Your task to perform on an android device: change the upload size in google photos Image 0: 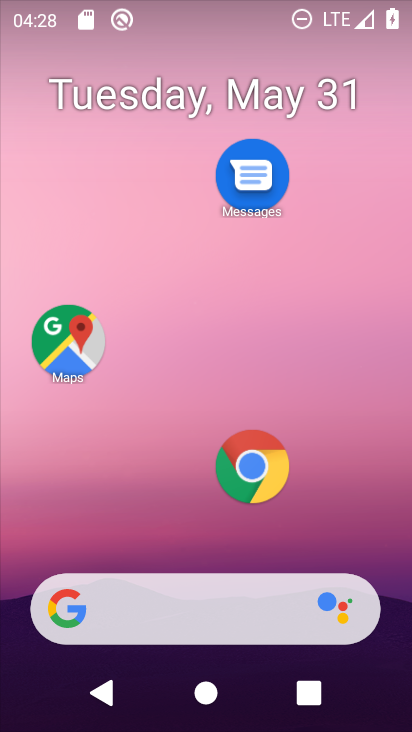
Step 0: drag from (188, 378) to (211, 20)
Your task to perform on an android device: change the upload size in google photos Image 1: 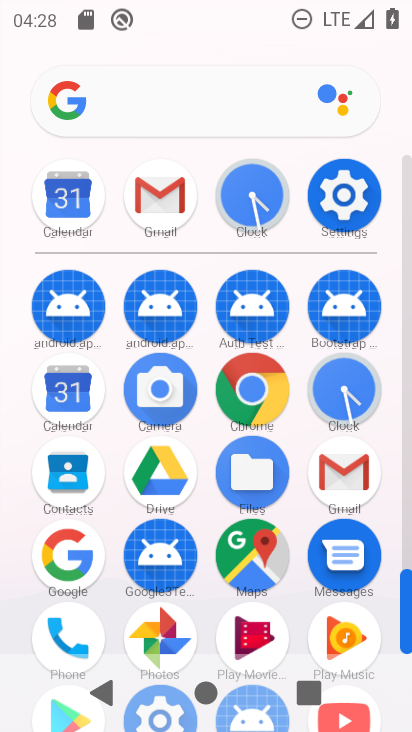
Step 1: click (181, 618)
Your task to perform on an android device: change the upload size in google photos Image 2: 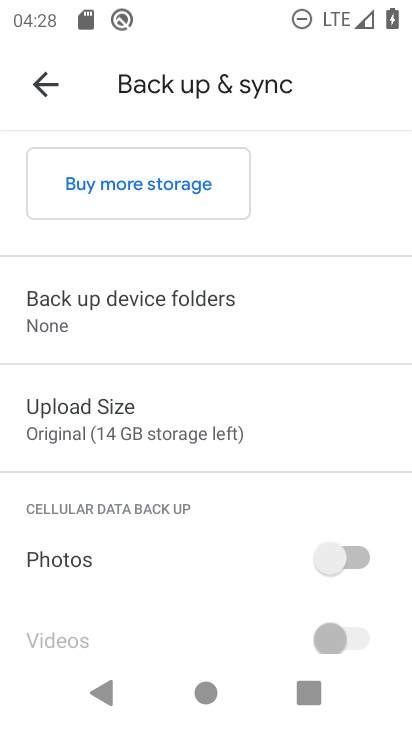
Step 2: click (102, 396)
Your task to perform on an android device: change the upload size in google photos Image 3: 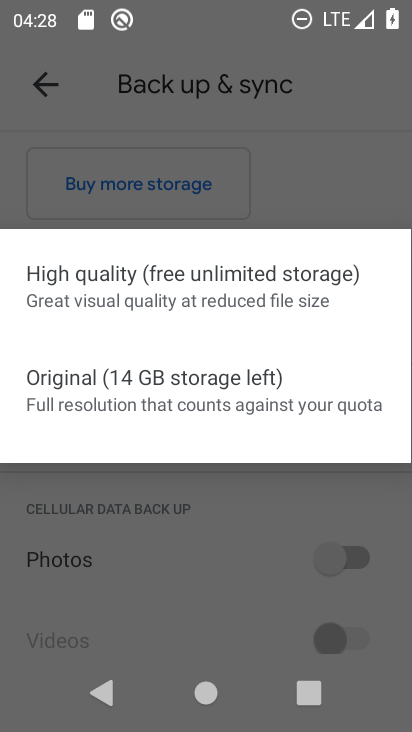
Step 3: click (96, 288)
Your task to perform on an android device: change the upload size in google photos Image 4: 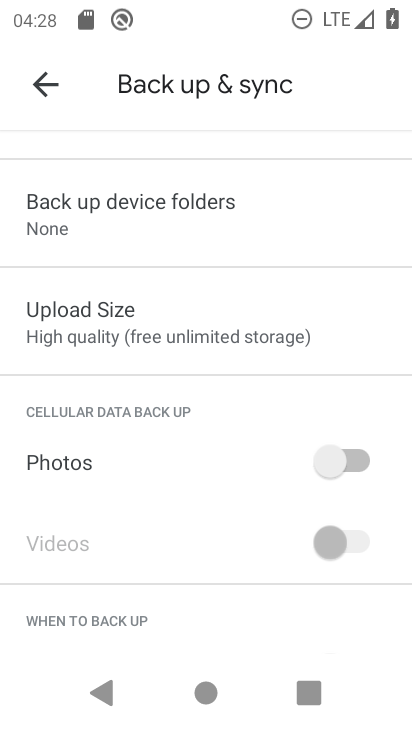
Step 4: task complete